Your task to perform on an android device: move an email to a new category in the gmail app Image 0: 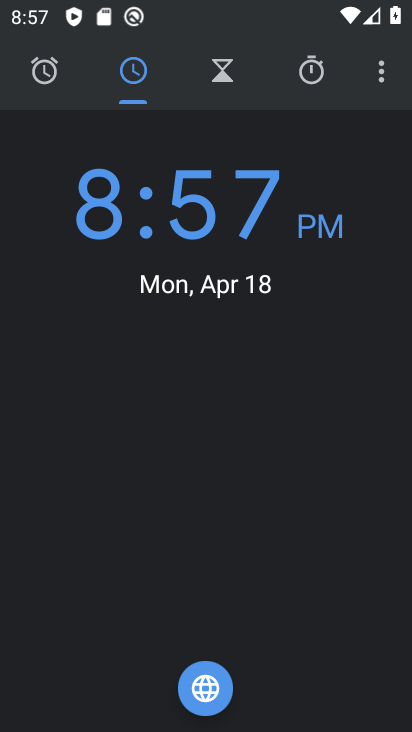
Step 0: press back button
Your task to perform on an android device: move an email to a new category in the gmail app Image 1: 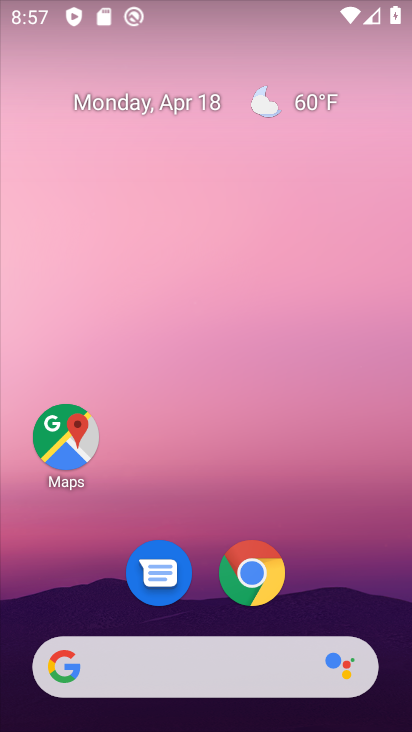
Step 1: drag from (212, 727) to (217, 106)
Your task to perform on an android device: move an email to a new category in the gmail app Image 2: 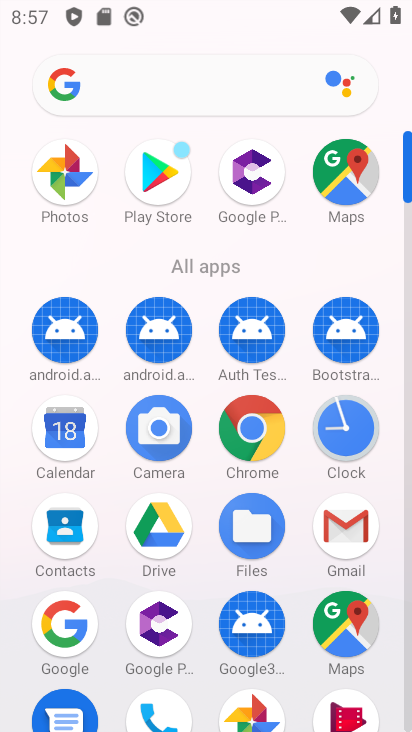
Step 2: click (347, 518)
Your task to perform on an android device: move an email to a new category in the gmail app Image 3: 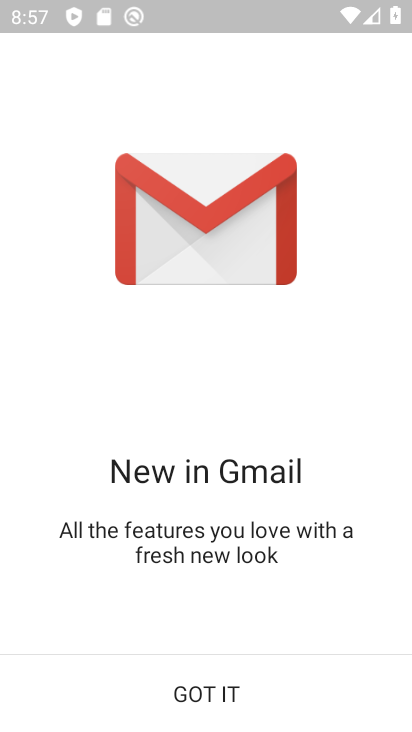
Step 3: click (204, 690)
Your task to perform on an android device: move an email to a new category in the gmail app Image 4: 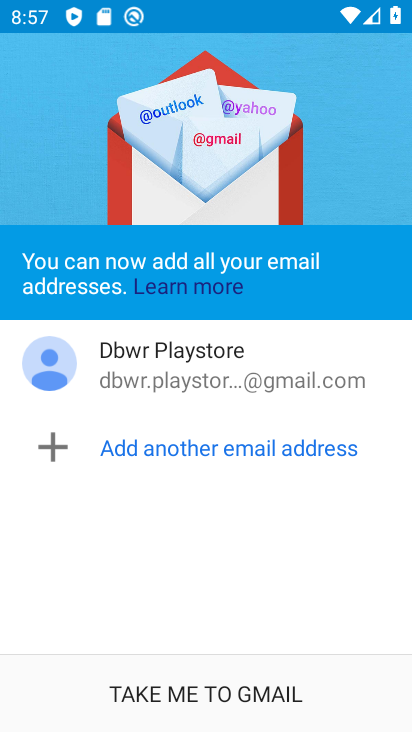
Step 4: click (204, 690)
Your task to perform on an android device: move an email to a new category in the gmail app Image 5: 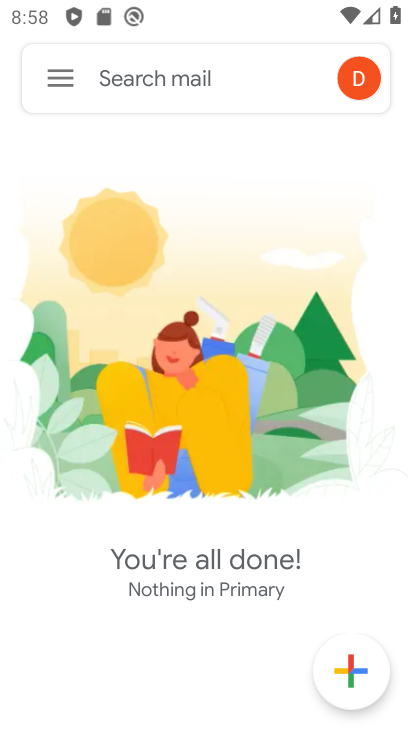
Step 5: click (57, 77)
Your task to perform on an android device: move an email to a new category in the gmail app Image 6: 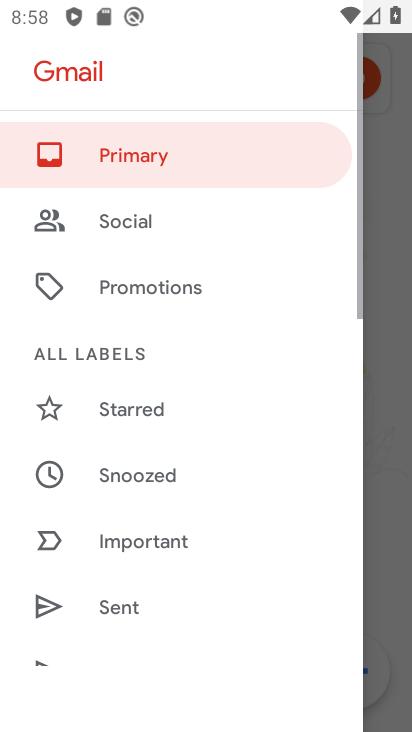
Step 6: drag from (160, 193) to (160, 561)
Your task to perform on an android device: move an email to a new category in the gmail app Image 7: 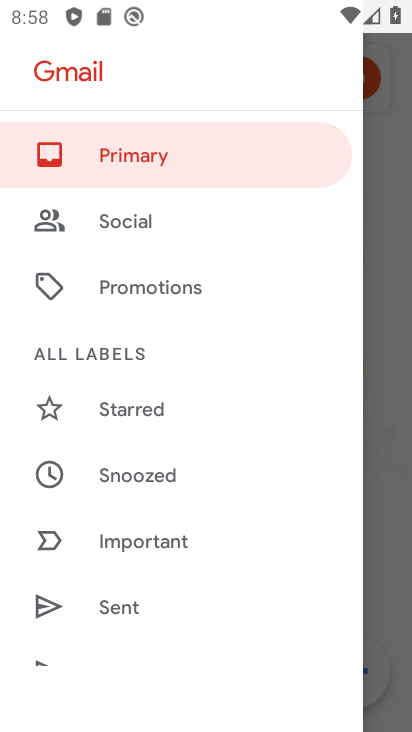
Step 7: click (220, 152)
Your task to perform on an android device: move an email to a new category in the gmail app Image 8: 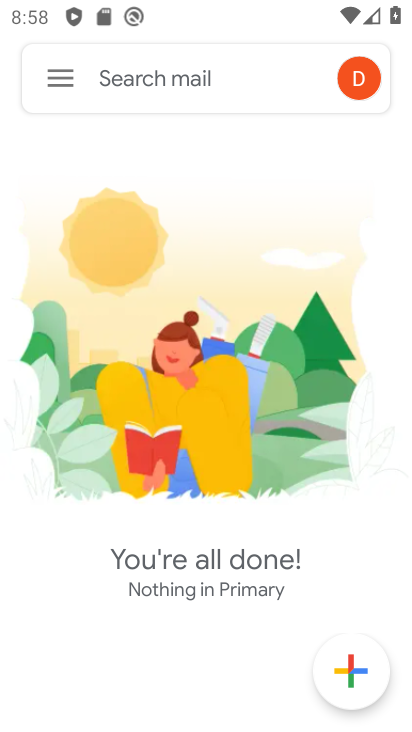
Step 8: task complete